Your task to perform on an android device: Go to location settings Image 0: 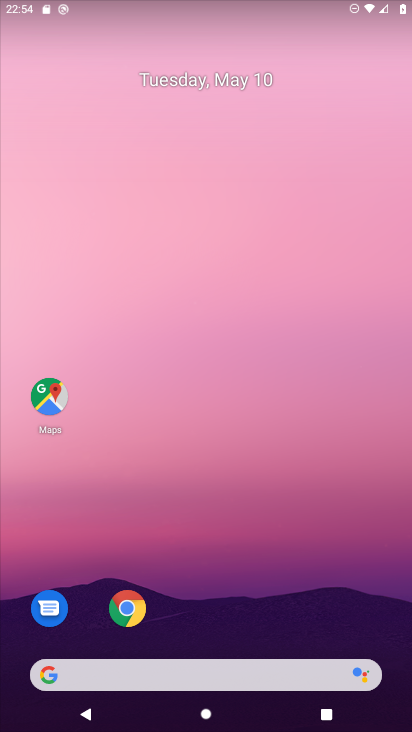
Step 0: drag from (238, 612) to (277, 195)
Your task to perform on an android device: Go to location settings Image 1: 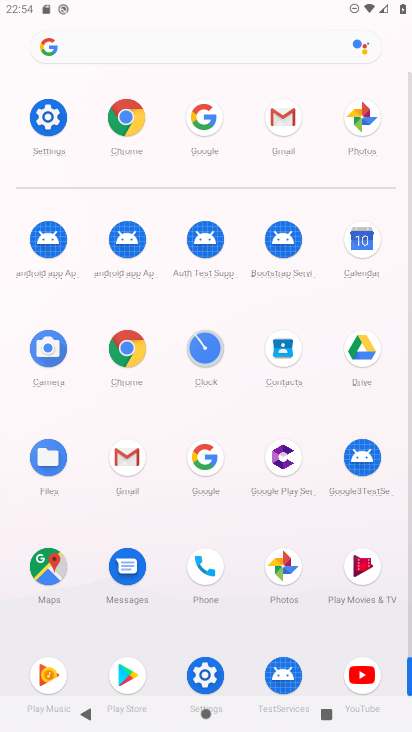
Step 1: click (50, 110)
Your task to perform on an android device: Go to location settings Image 2: 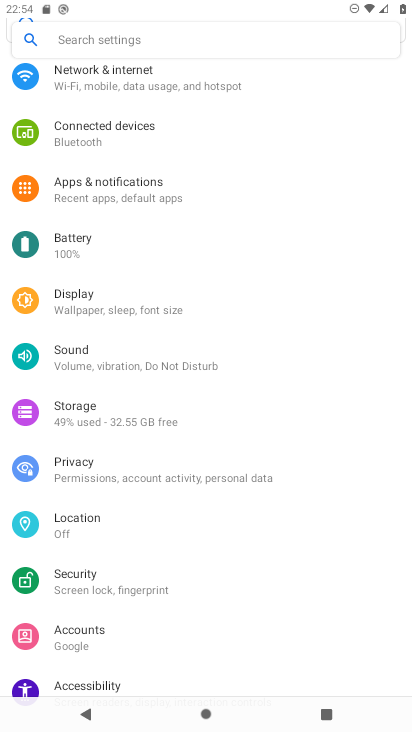
Step 2: click (79, 527)
Your task to perform on an android device: Go to location settings Image 3: 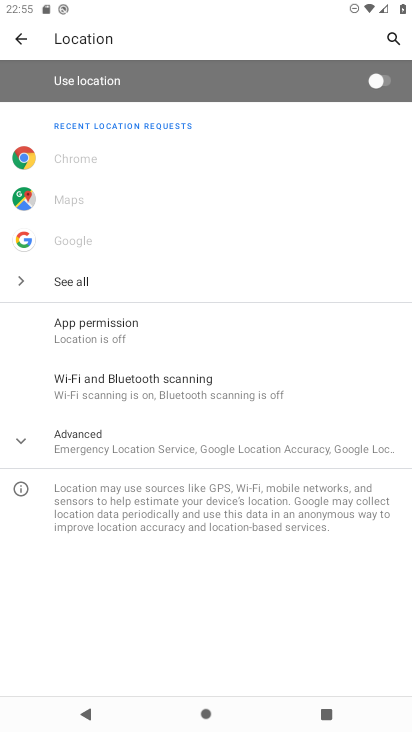
Step 3: task complete